Your task to perform on an android device: turn pop-ups off in chrome Image 0: 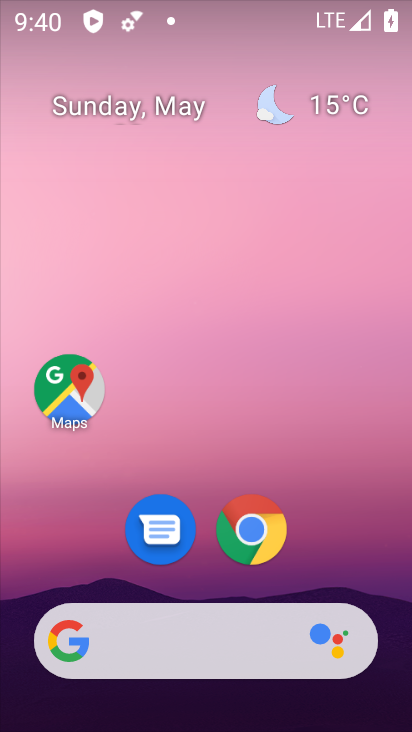
Step 0: drag from (214, 633) to (218, 21)
Your task to perform on an android device: turn pop-ups off in chrome Image 1: 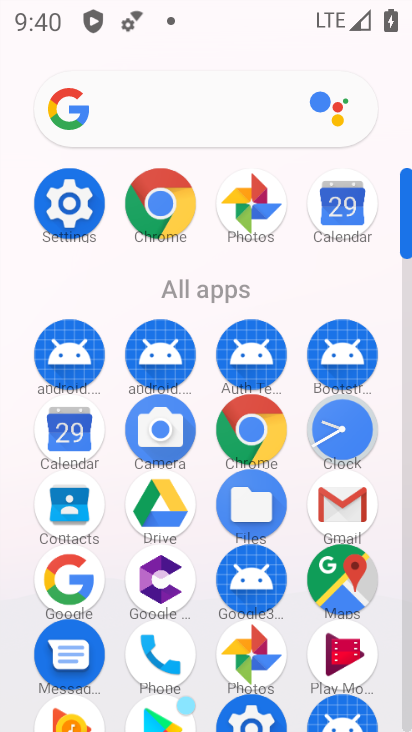
Step 1: click (246, 429)
Your task to perform on an android device: turn pop-ups off in chrome Image 2: 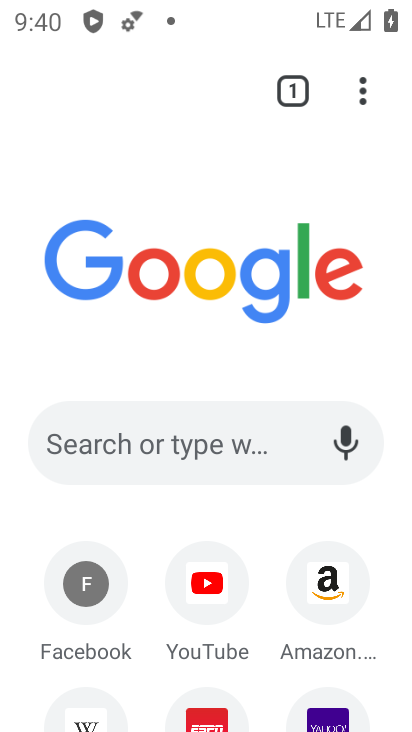
Step 2: drag from (365, 87) to (235, 574)
Your task to perform on an android device: turn pop-ups off in chrome Image 3: 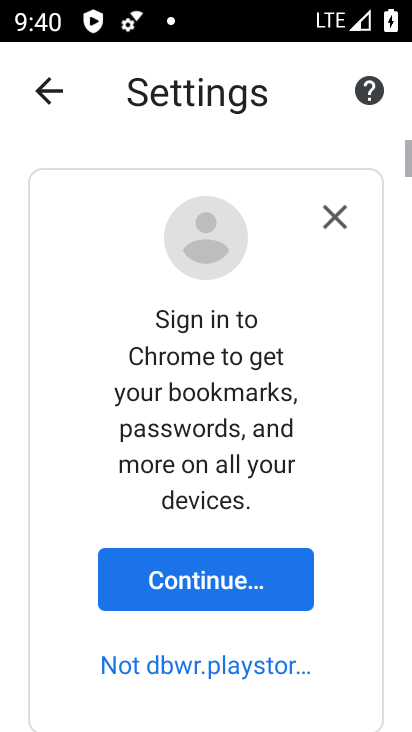
Step 3: drag from (213, 621) to (171, 79)
Your task to perform on an android device: turn pop-ups off in chrome Image 4: 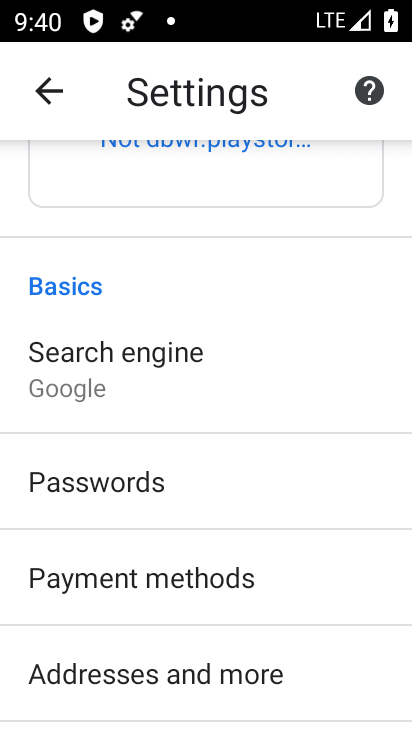
Step 4: drag from (129, 472) to (118, 1)
Your task to perform on an android device: turn pop-ups off in chrome Image 5: 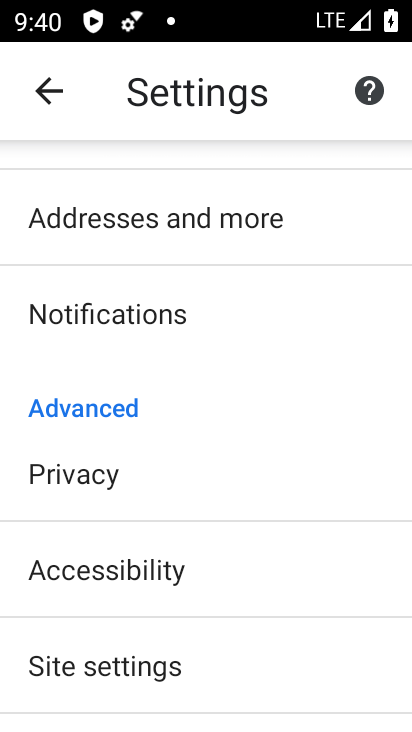
Step 5: click (176, 676)
Your task to perform on an android device: turn pop-ups off in chrome Image 6: 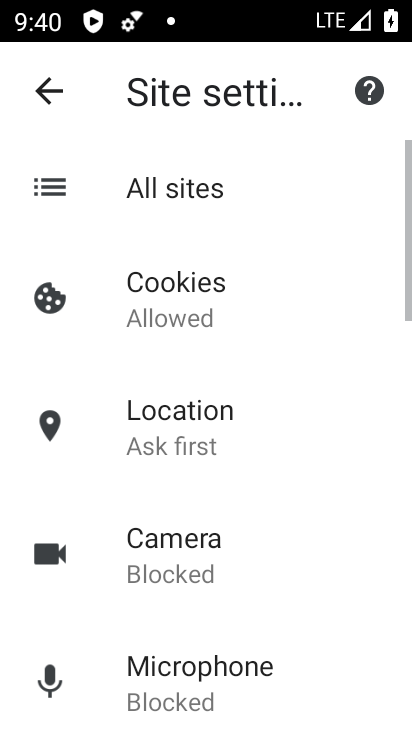
Step 6: drag from (167, 661) to (155, 224)
Your task to perform on an android device: turn pop-ups off in chrome Image 7: 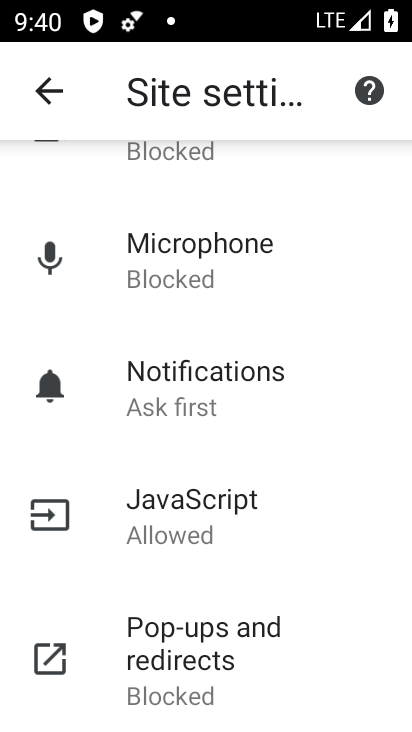
Step 7: click (158, 623)
Your task to perform on an android device: turn pop-ups off in chrome Image 8: 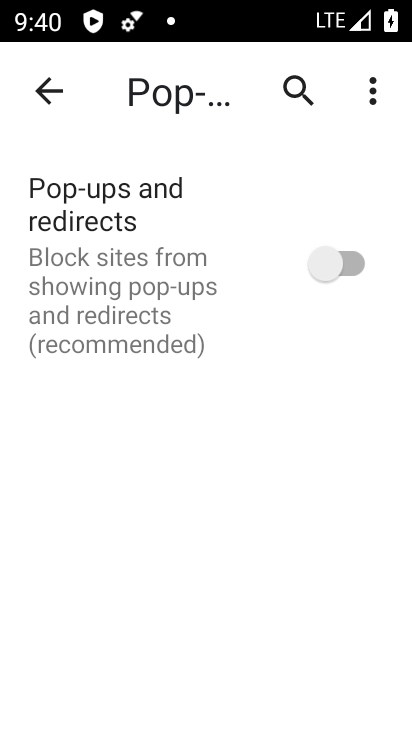
Step 8: task complete